Your task to perform on an android device: toggle translation in the chrome app Image 0: 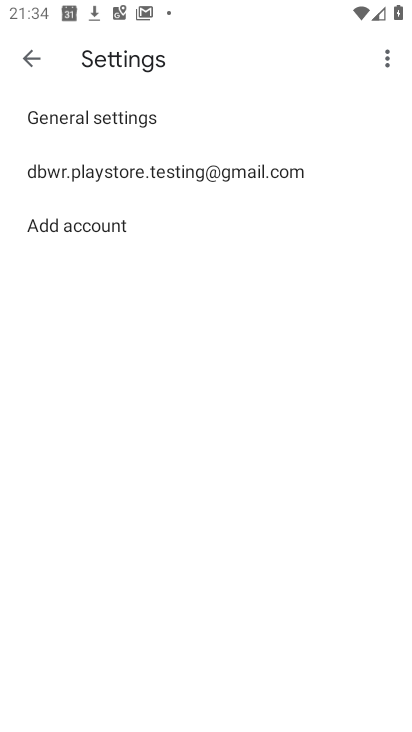
Step 0: press home button
Your task to perform on an android device: toggle translation in the chrome app Image 1: 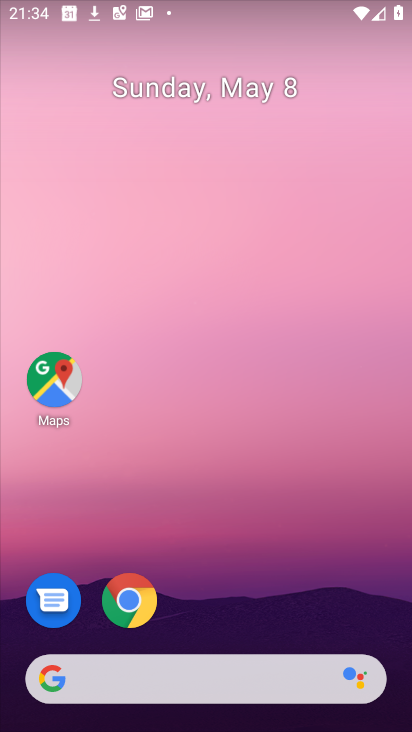
Step 1: drag from (310, 709) to (266, 112)
Your task to perform on an android device: toggle translation in the chrome app Image 2: 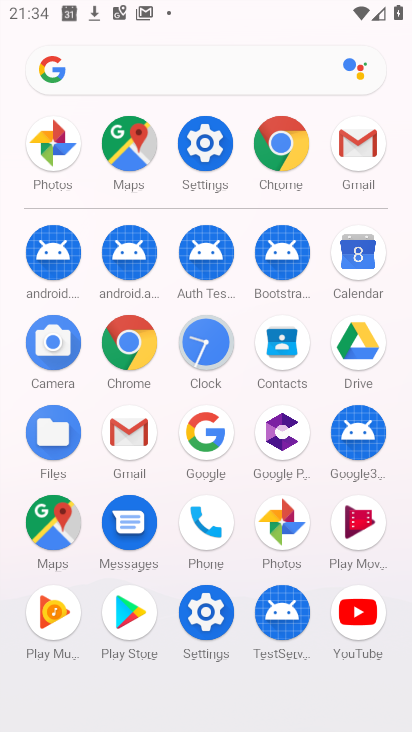
Step 2: click (278, 165)
Your task to perform on an android device: toggle translation in the chrome app Image 3: 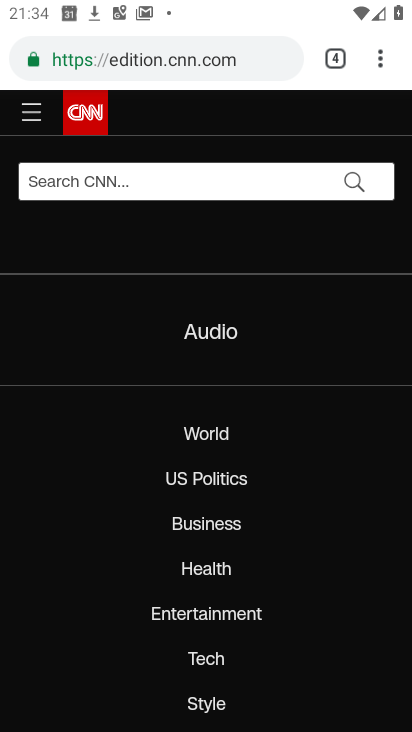
Step 3: click (376, 76)
Your task to perform on an android device: toggle translation in the chrome app Image 4: 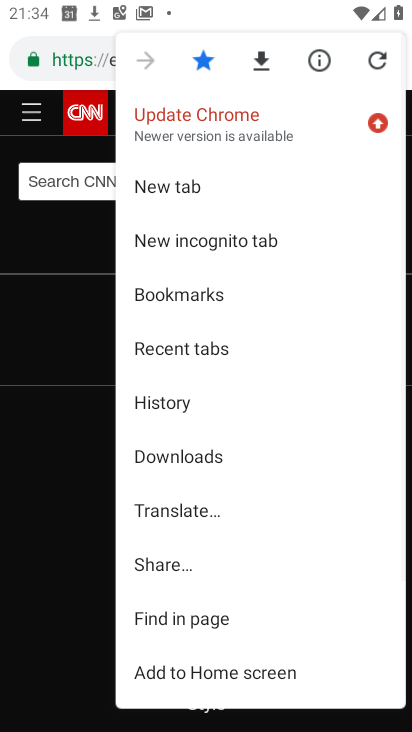
Step 4: drag from (211, 627) to (249, 435)
Your task to perform on an android device: toggle translation in the chrome app Image 5: 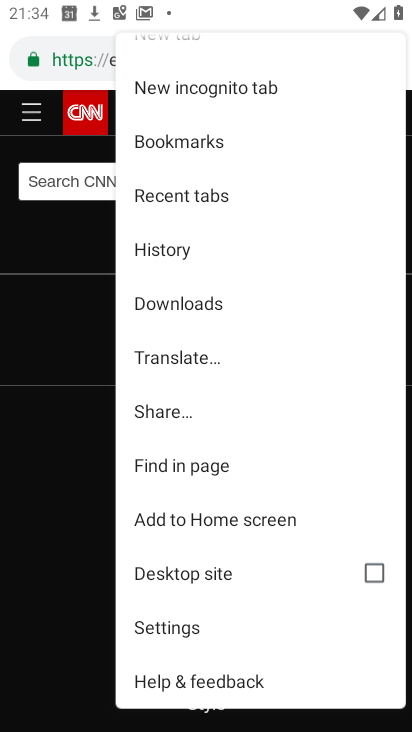
Step 5: click (158, 627)
Your task to perform on an android device: toggle translation in the chrome app Image 6: 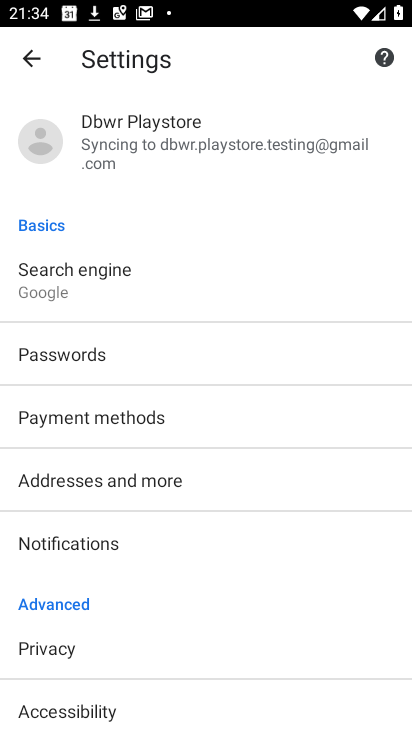
Step 6: drag from (155, 627) to (214, 330)
Your task to perform on an android device: toggle translation in the chrome app Image 7: 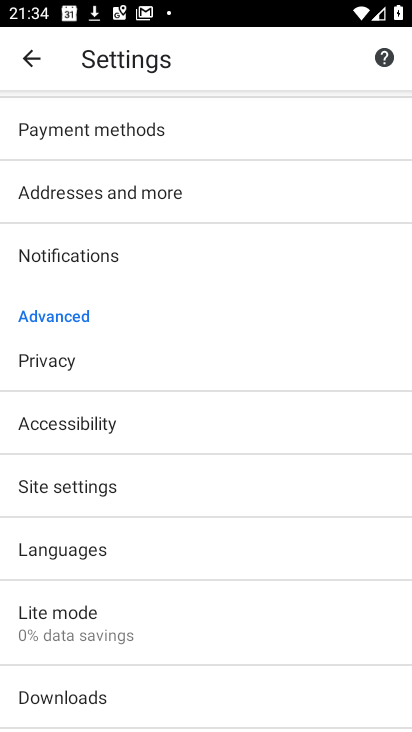
Step 7: click (95, 538)
Your task to perform on an android device: toggle translation in the chrome app Image 8: 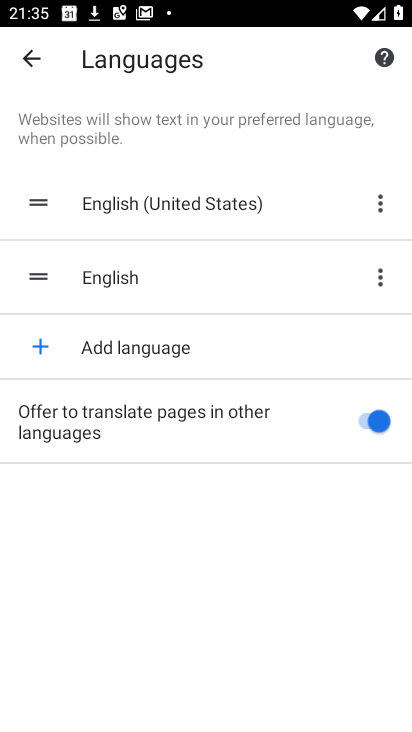
Step 8: click (266, 417)
Your task to perform on an android device: toggle translation in the chrome app Image 9: 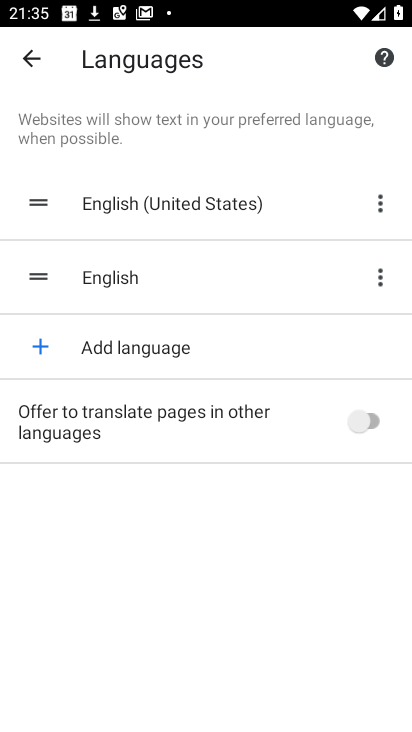
Step 9: click (264, 417)
Your task to perform on an android device: toggle translation in the chrome app Image 10: 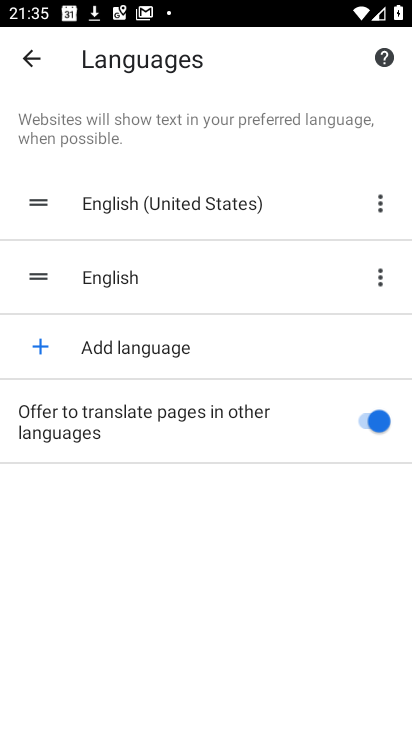
Step 10: task complete